Your task to perform on an android device: change notifications settings Image 0: 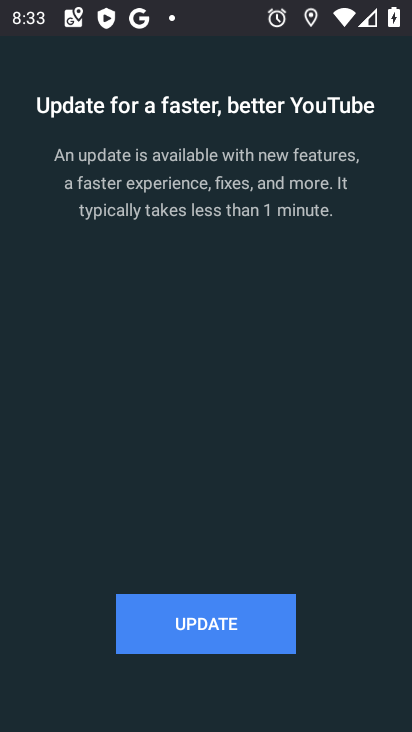
Step 0: press home button
Your task to perform on an android device: change notifications settings Image 1: 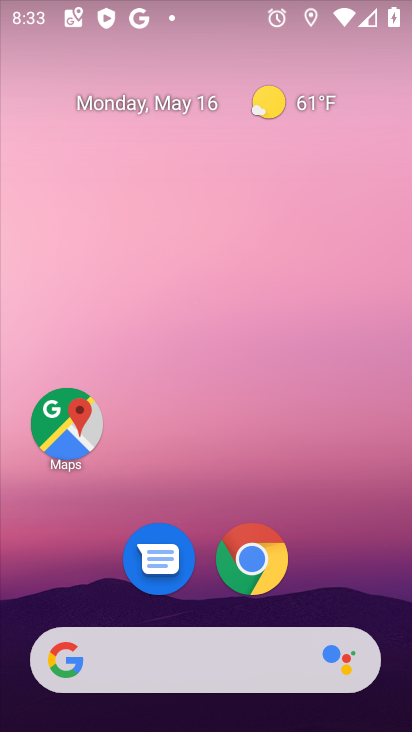
Step 1: drag from (327, 557) to (319, 120)
Your task to perform on an android device: change notifications settings Image 2: 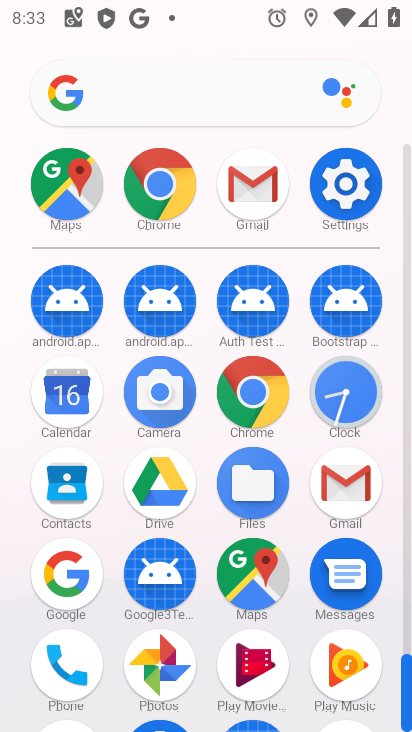
Step 2: click (343, 185)
Your task to perform on an android device: change notifications settings Image 3: 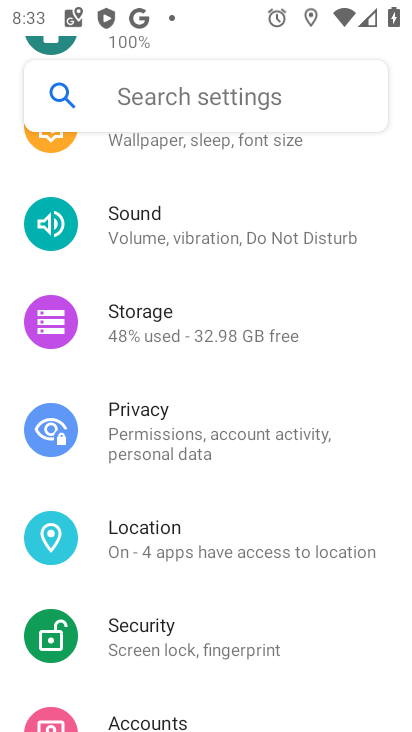
Step 3: drag from (344, 186) to (288, 552)
Your task to perform on an android device: change notifications settings Image 4: 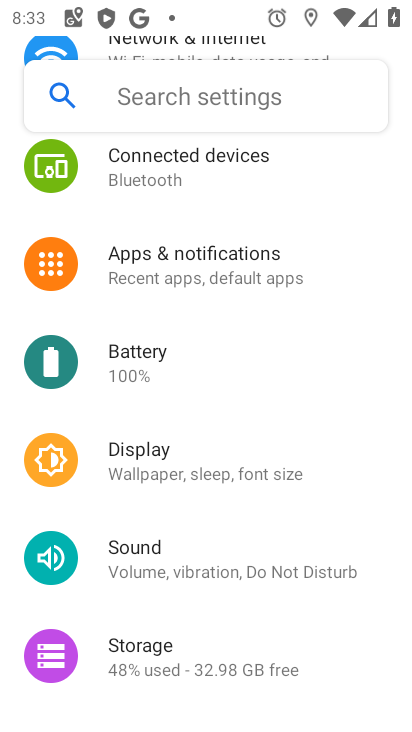
Step 4: click (211, 250)
Your task to perform on an android device: change notifications settings Image 5: 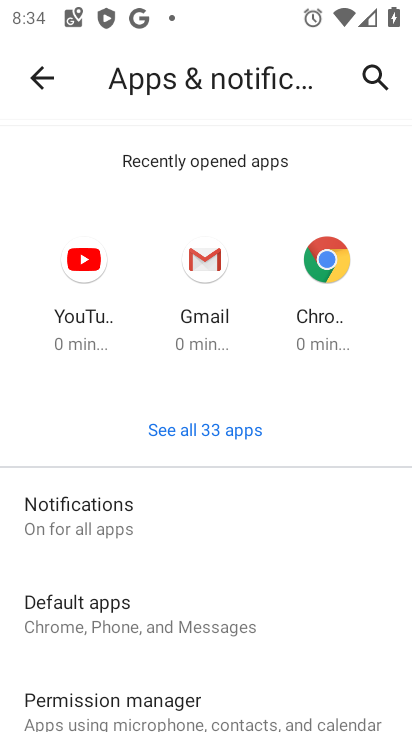
Step 5: click (70, 510)
Your task to perform on an android device: change notifications settings Image 6: 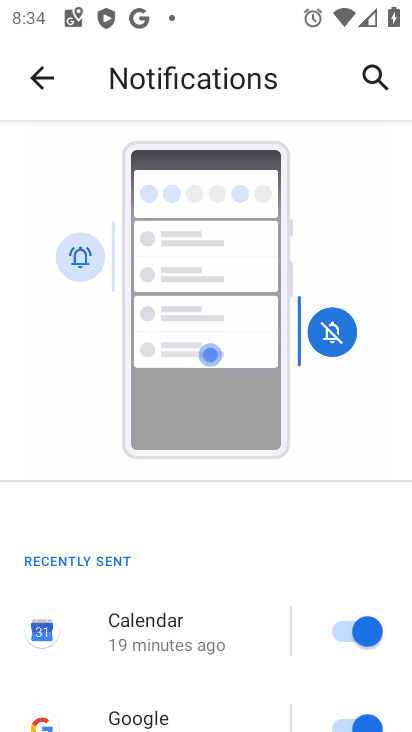
Step 6: drag from (269, 521) to (320, 215)
Your task to perform on an android device: change notifications settings Image 7: 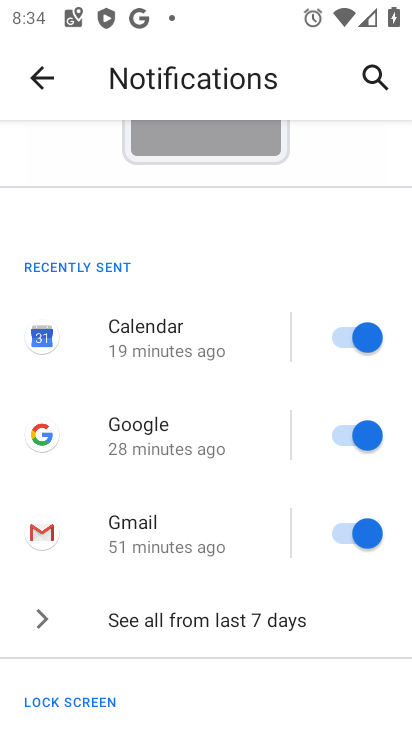
Step 7: drag from (305, 657) to (292, 282)
Your task to perform on an android device: change notifications settings Image 8: 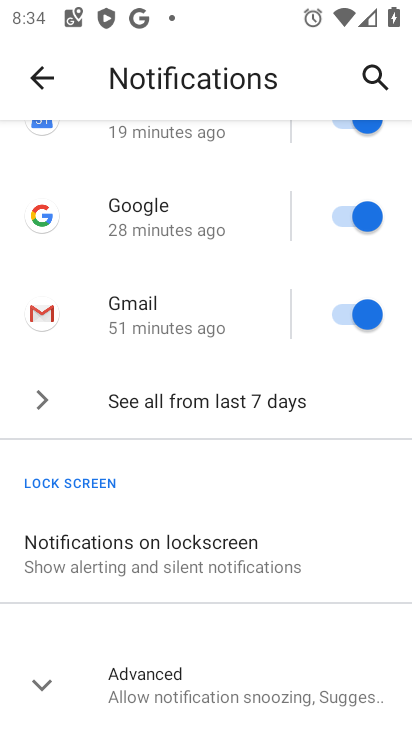
Step 8: click (198, 699)
Your task to perform on an android device: change notifications settings Image 9: 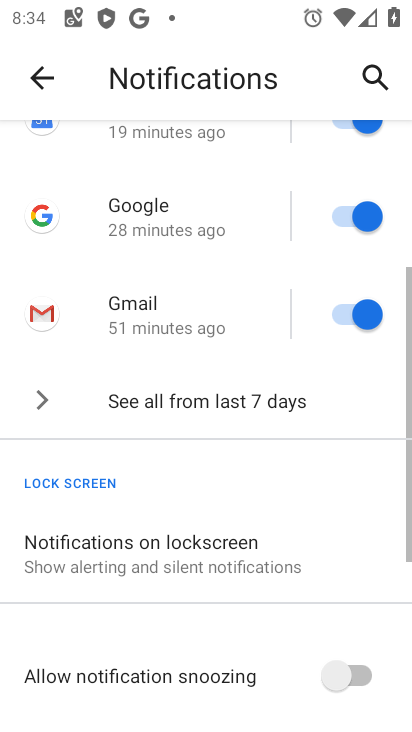
Step 9: task complete